Your task to perform on an android device: Open Google Maps and go to "Timeline" Image 0: 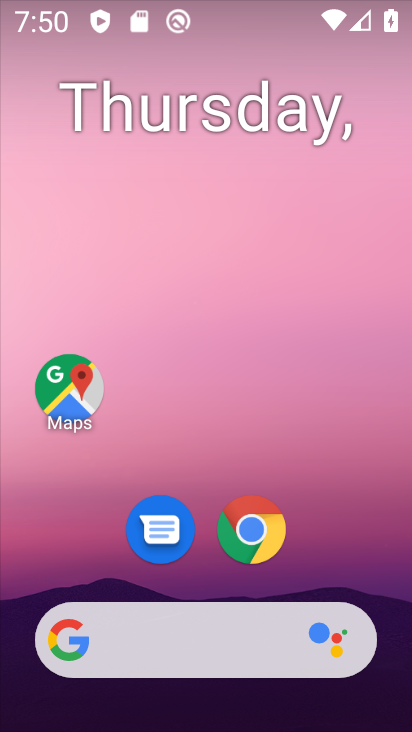
Step 0: press back button
Your task to perform on an android device: Open Google Maps and go to "Timeline" Image 1: 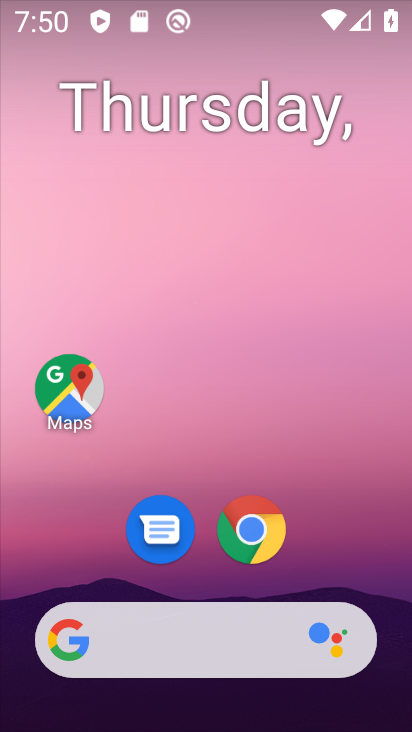
Step 1: drag from (221, 668) to (178, 126)
Your task to perform on an android device: Open Google Maps and go to "Timeline" Image 2: 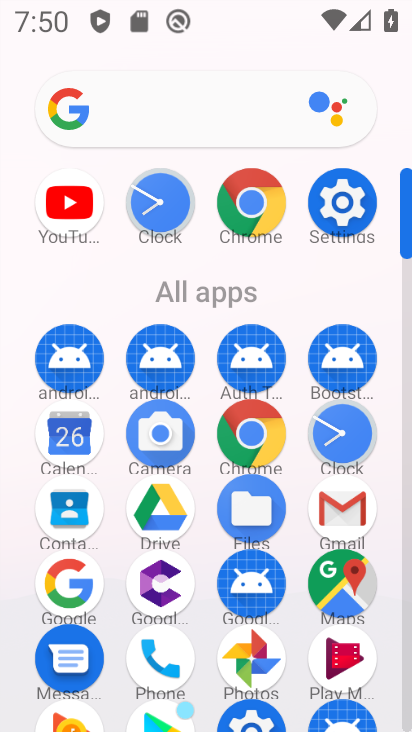
Step 2: drag from (133, 31) to (177, 216)
Your task to perform on an android device: Open Google Maps and go to "Timeline" Image 3: 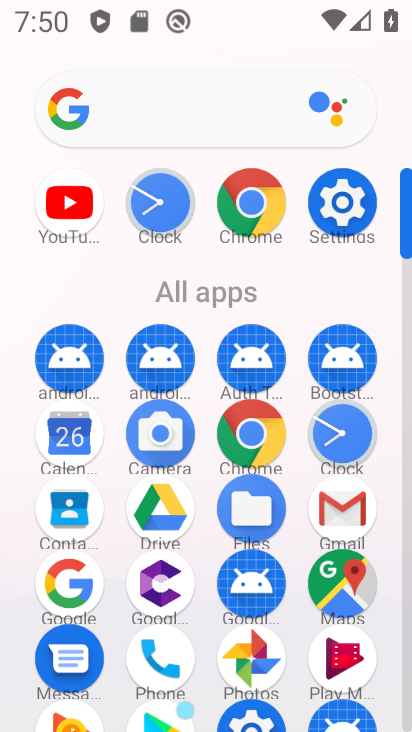
Step 3: click (356, 587)
Your task to perform on an android device: Open Google Maps and go to "Timeline" Image 4: 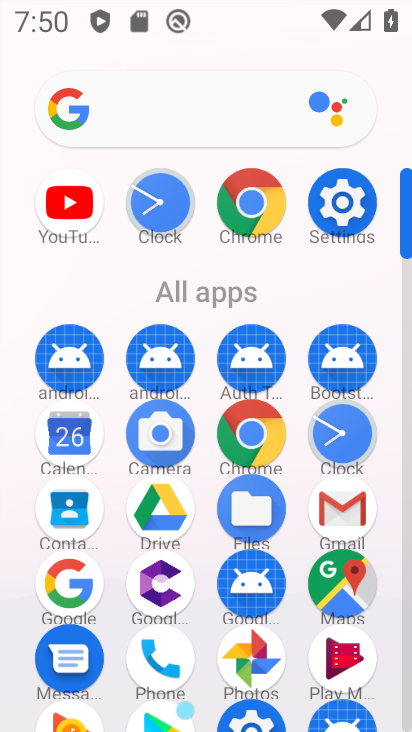
Step 4: click (356, 587)
Your task to perform on an android device: Open Google Maps and go to "Timeline" Image 5: 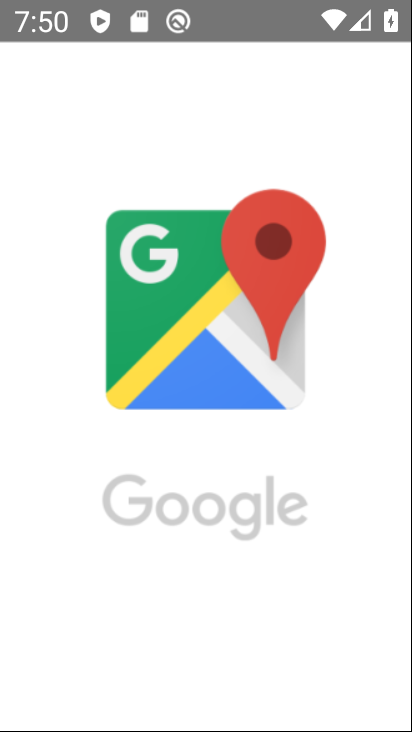
Step 5: task complete